Your task to perform on an android device: change the clock display to digital Image 0: 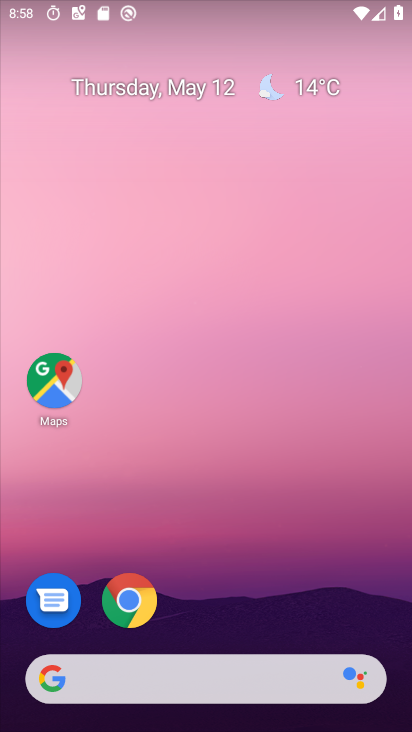
Step 0: drag from (368, 589) to (140, 99)
Your task to perform on an android device: change the clock display to digital Image 1: 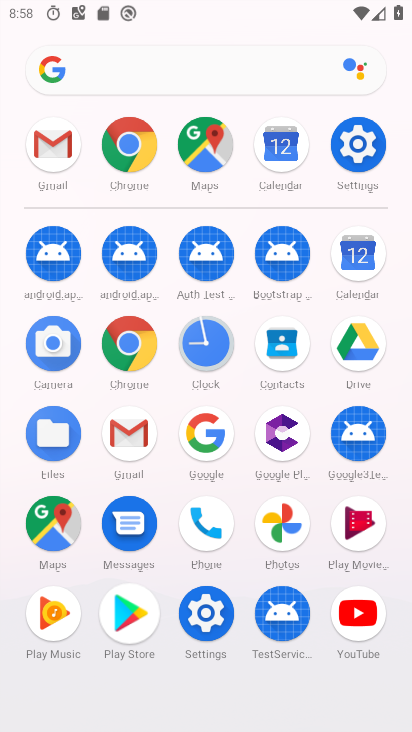
Step 1: click (191, 340)
Your task to perform on an android device: change the clock display to digital Image 2: 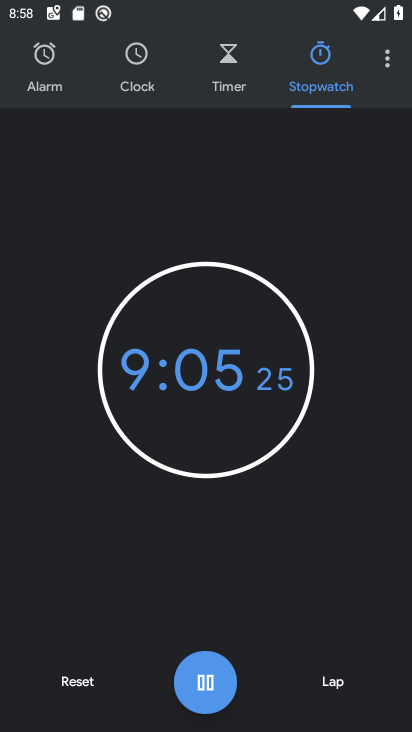
Step 2: click (208, 684)
Your task to perform on an android device: change the clock display to digital Image 3: 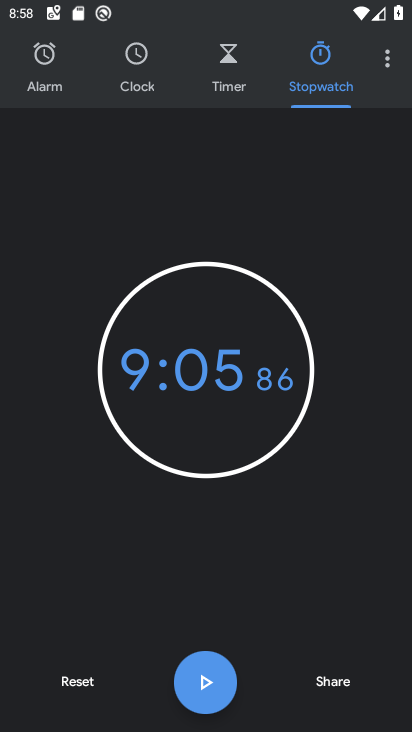
Step 3: click (395, 64)
Your task to perform on an android device: change the clock display to digital Image 4: 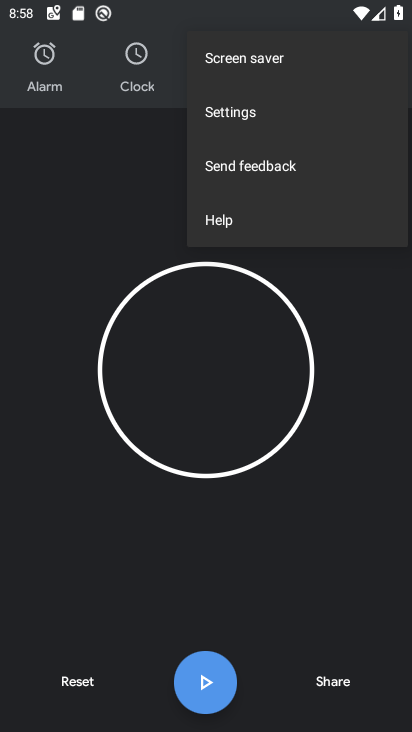
Step 4: click (248, 110)
Your task to perform on an android device: change the clock display to digital Image 5: 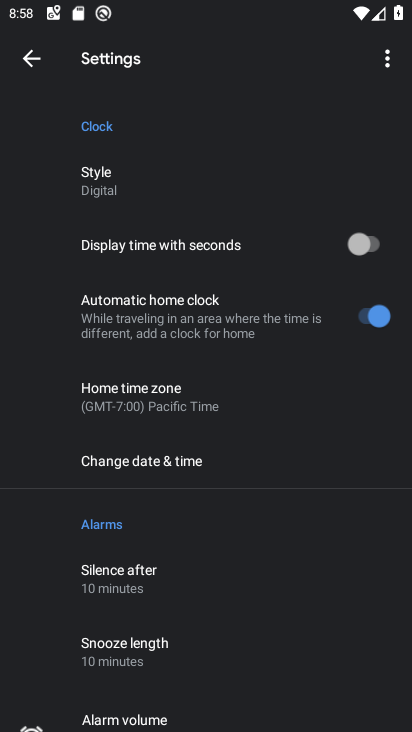
Step 5: click (150, 174)
Your task to perform on an android device: change the clock display to digital Image 6: 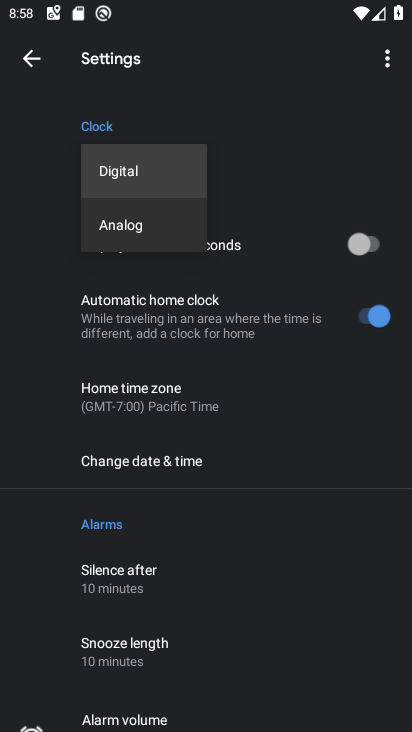
Step 6: click (133, 160)
Your task to perform on an android device: change the clock display to digital Image 7: 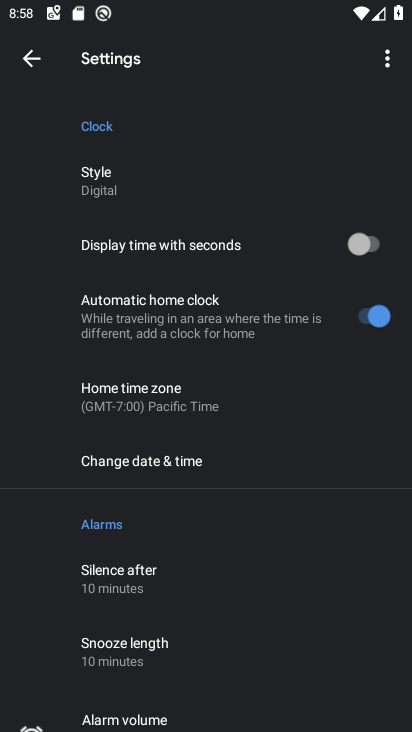
Step 7: task complete